Your task to perform on an android device: Open settings Image 0: 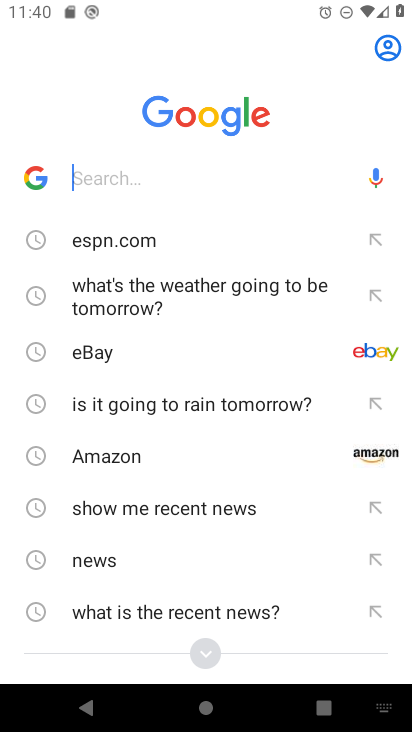
Step 0: press home button
Your task to perform on an android device: Open settings Image 1: 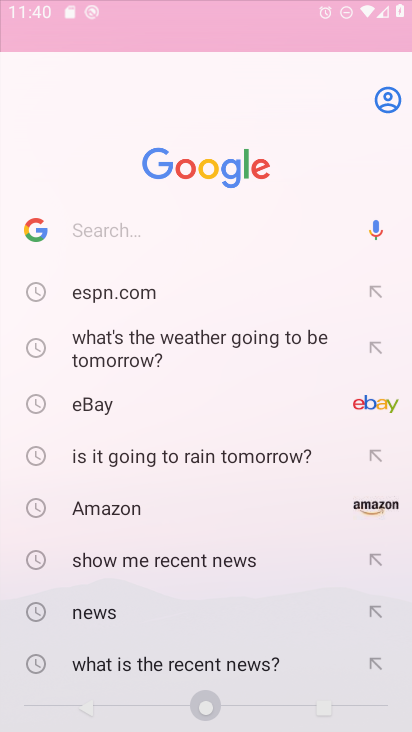
Step 1: press home button
Your task to perform on an android device: Open settings Image 2: 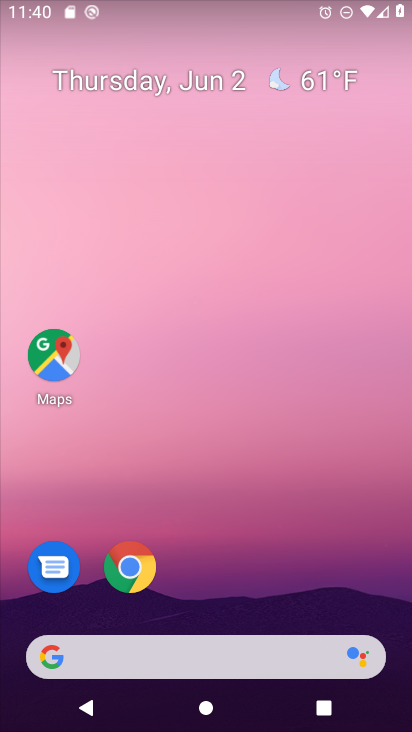
Step 2: drag from (304, 558) to (304, 377)
Your task to perform on an android device: Open settings Image 3: 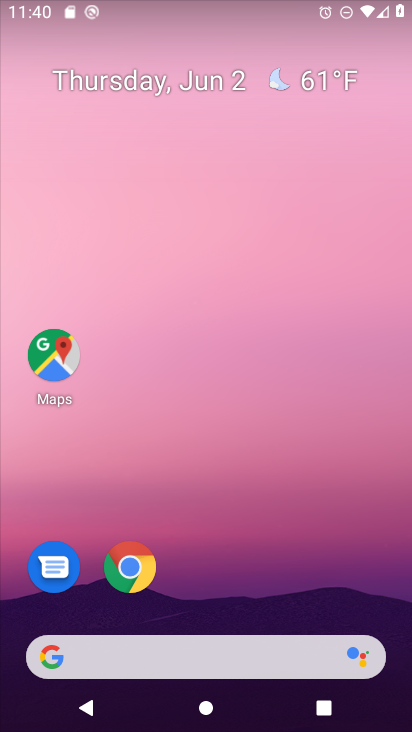
Step 3: drag from (265, 256) to (280, 8)
Your task to perform on an android device: Open settings Image 4: 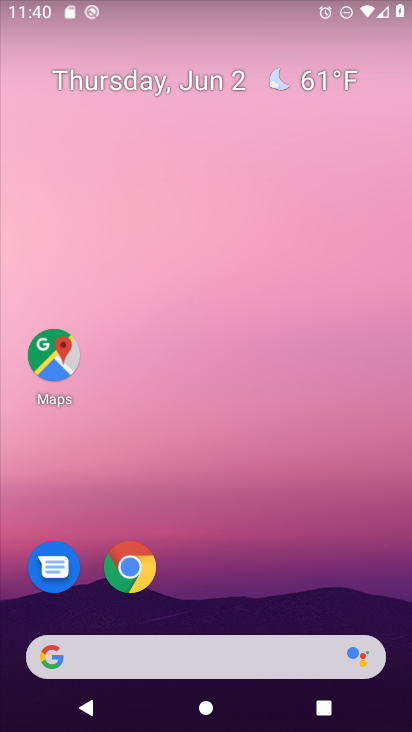
Step 4: drag from (267, 432) to (223, 55)
Your task to perform on an android device: Open settings Image 5: 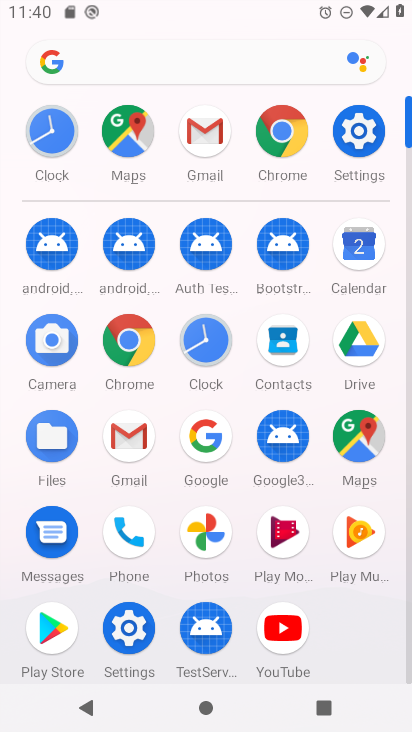
Step 5: click (363, 133)
Your task to perform on an android device: Open settings Image 6: 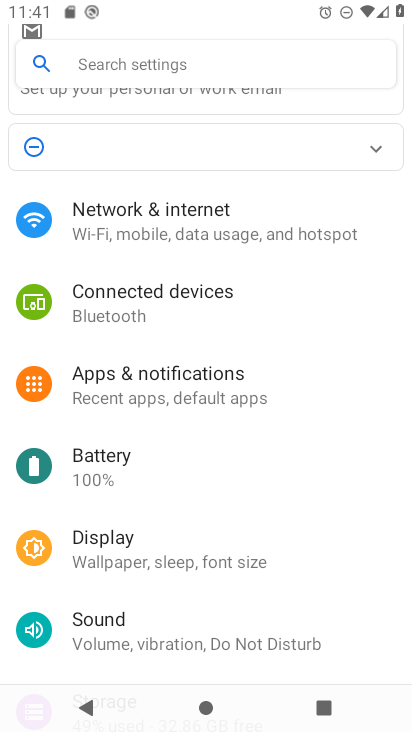
Step 6: task complete